Your task to perform on an android device: open app "WhatsApp Messenger" (install if not already installed) and go to login screen Image 0: 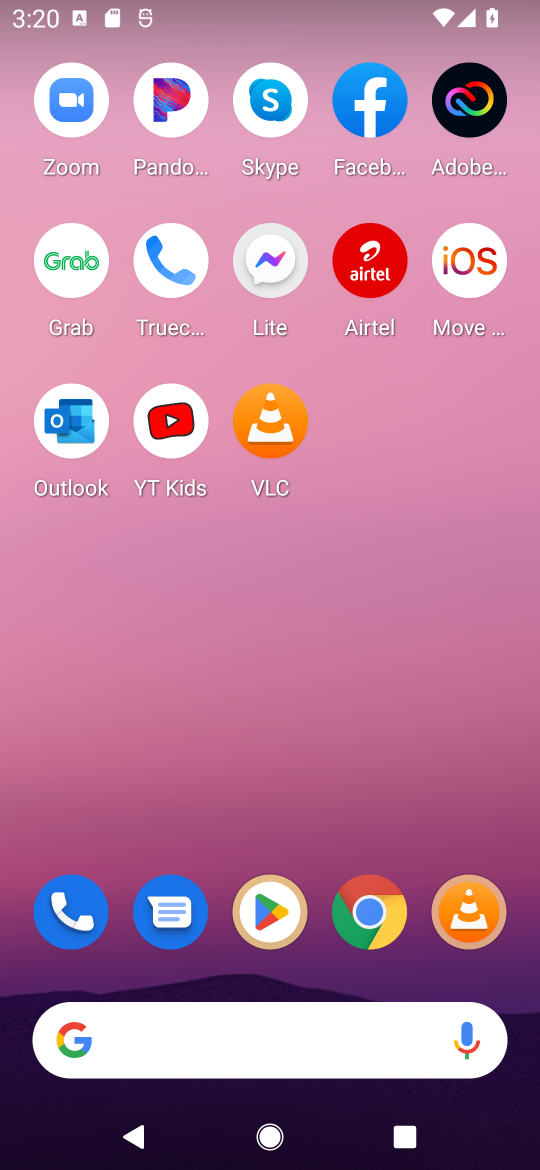
Step 0: drag from (151, 1059) to (226, 15)
Your task to perform on an android device: open app "WhatsApp Messenger" (install if not already installed) and go to login screen Image 1: 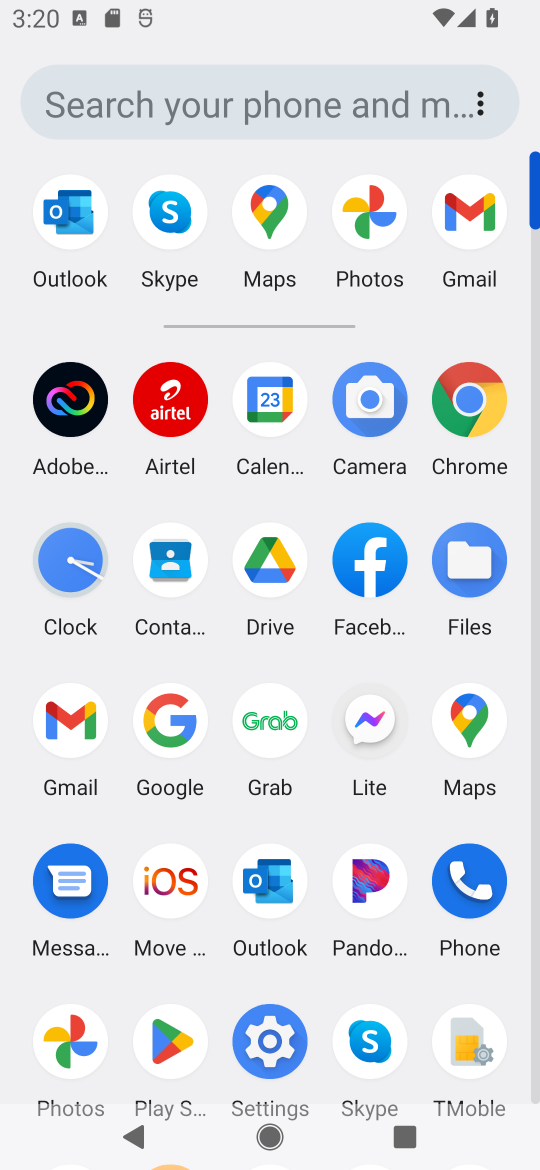
Step 1: click (171, 1037)
Your task to perform on an android device: open app "WhatsApp Messenger" (install if not already installed) and go to login screen Image 2: 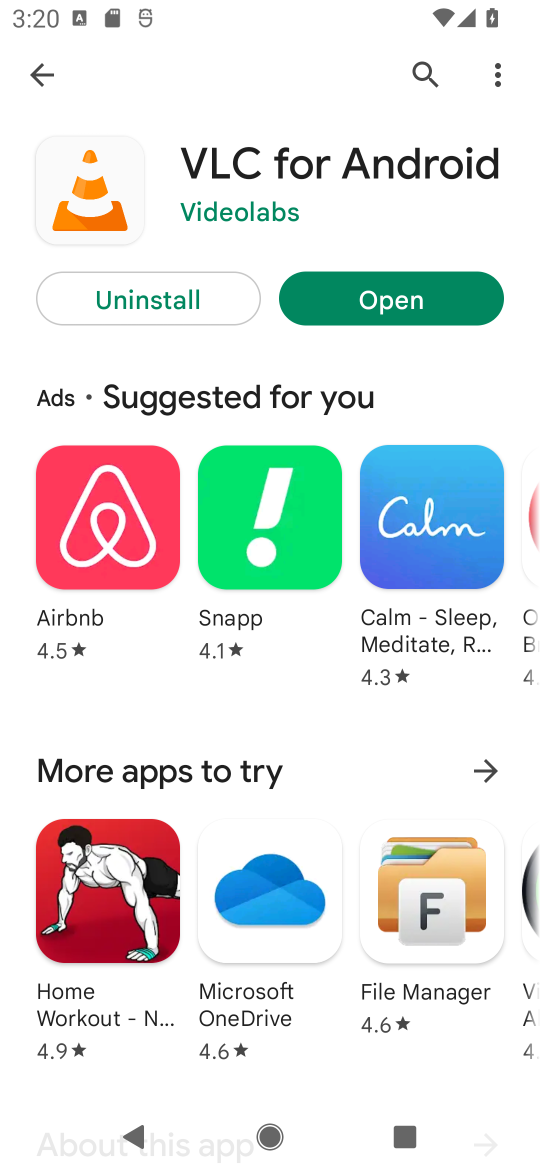
Step 2: press back button
Your task to perform on an android device: open app "WhatsApp Messenger" (install if not already installed) and go to login screen Image 3: 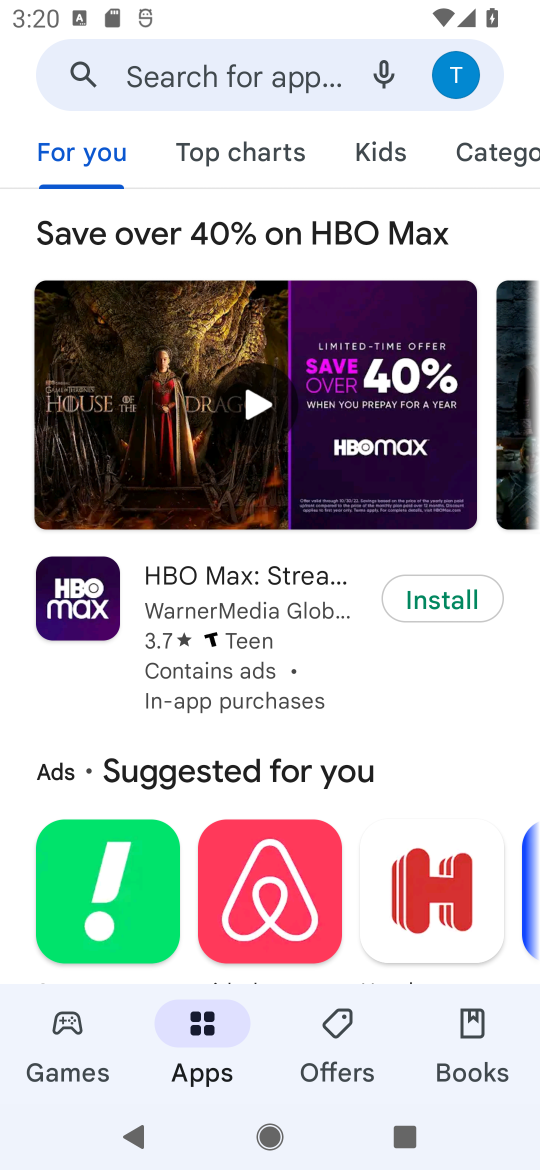
Step 3: click (303, 78)
Your task to perform on an android device: open app "WhatsApp Messenger" (install if not already installed) and go to login screen Image 4: 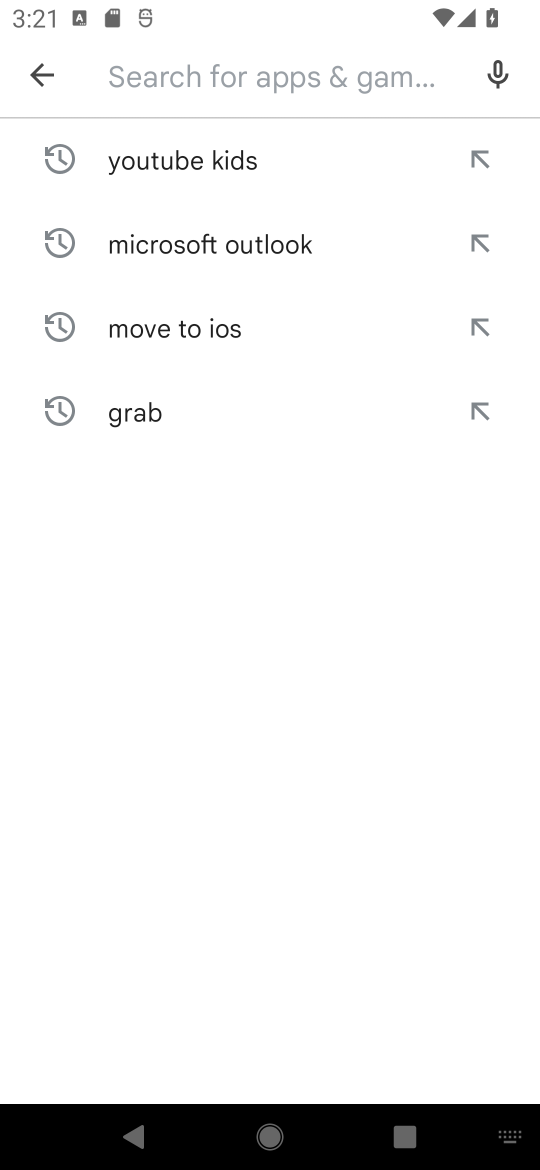
Step 4: type "WhatsApp Messenger"
Your task to perform on an android device: open app "WhatsApp Messenger" (install if not already installed) and go to login screen Image 5: 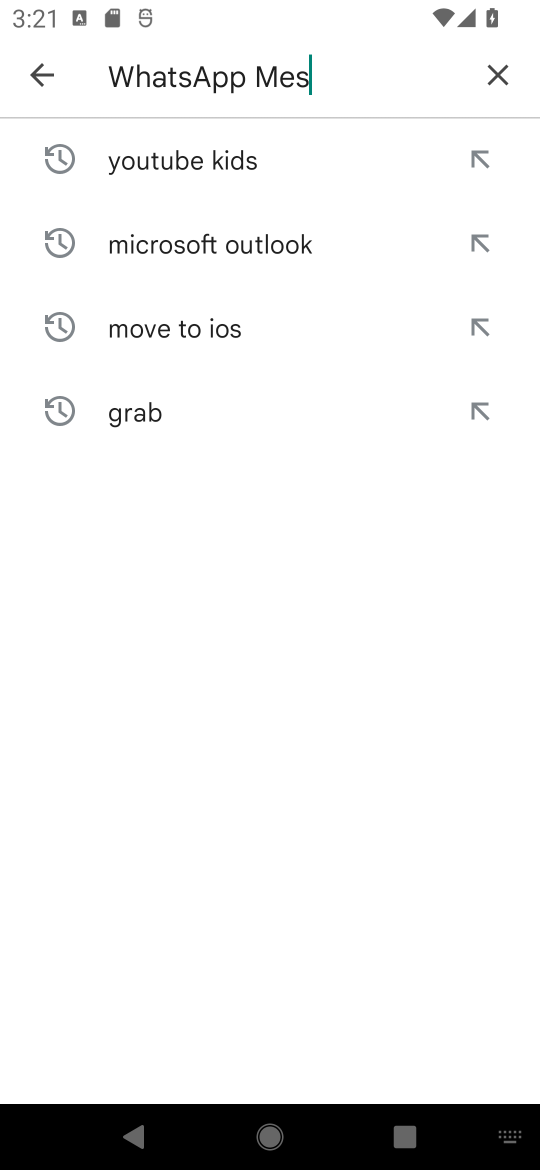
Step 5: type ""
Your task to perform on an android device: open app "WhatsApp Messenger" (install if not already installed) and go to login screen Image 6: 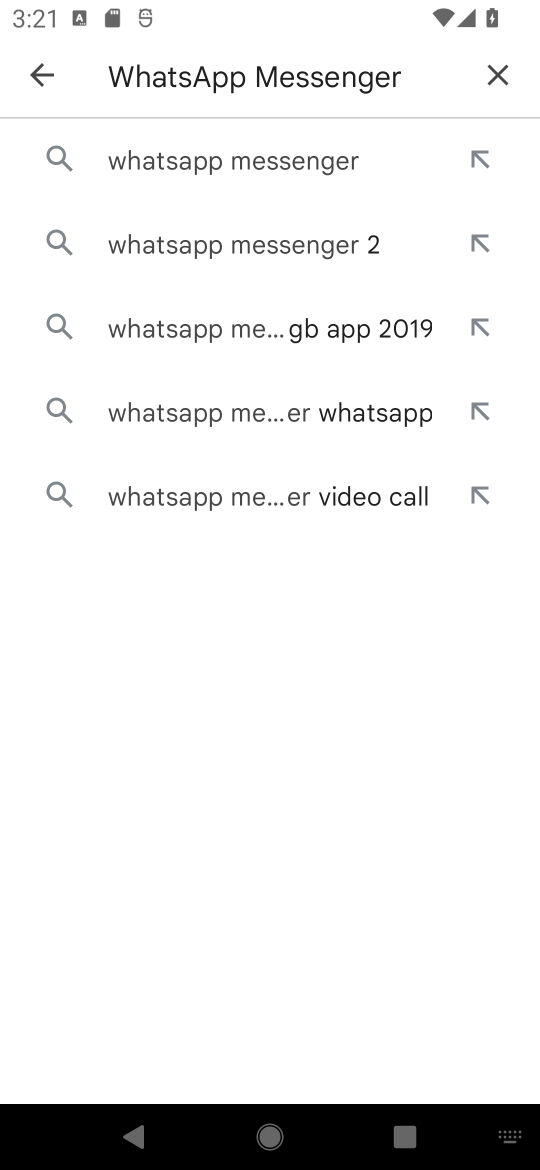
Step 6: click (294, 154)
Your task to perform on an android device: open app "WhatsApp Messenger" (install if not already installed) and go to login screen Image 7: 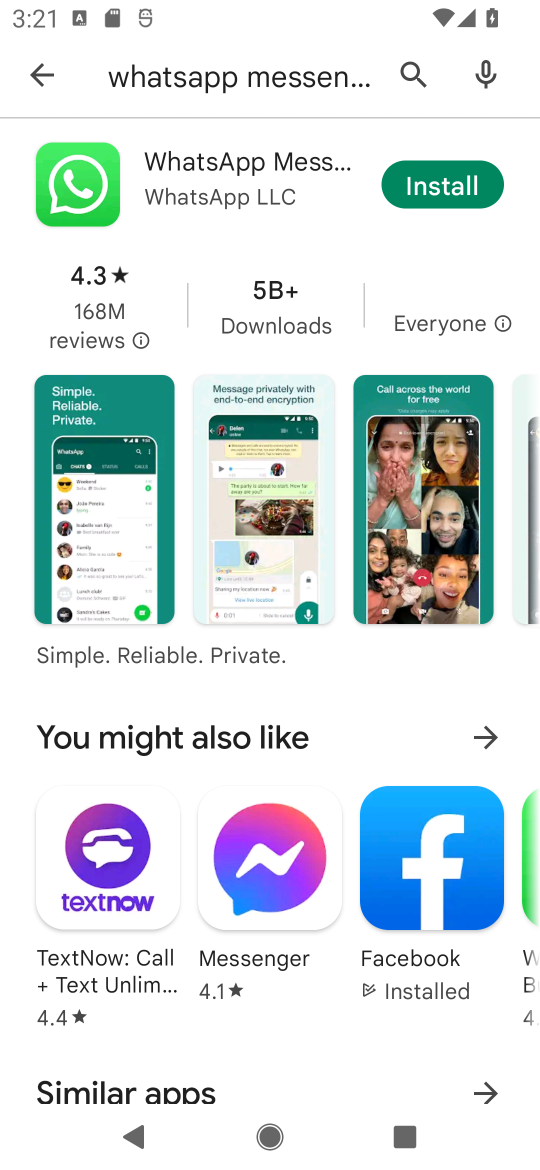
Step 7: click (434, 195)
Your task to perform on an android device: open app "WhatsApp Messenger" (install if not already installed) and go to login screen Image 8: 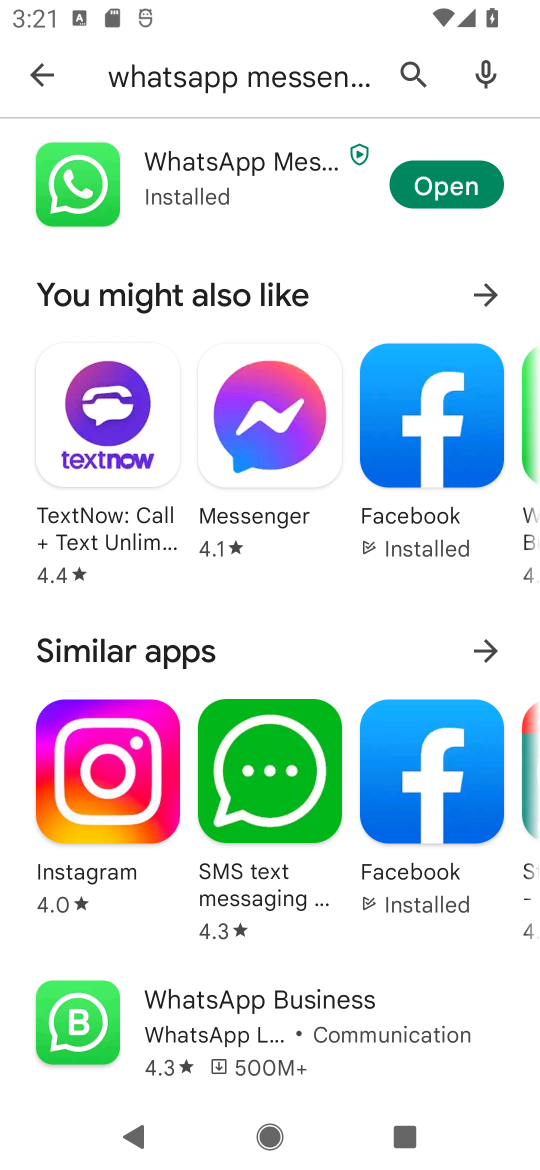
Step 8: click (440, 184)
Your task to perform on an android device: open app "WhatsApp Messenger" (install if not already installed) and go to login screen Image 9: 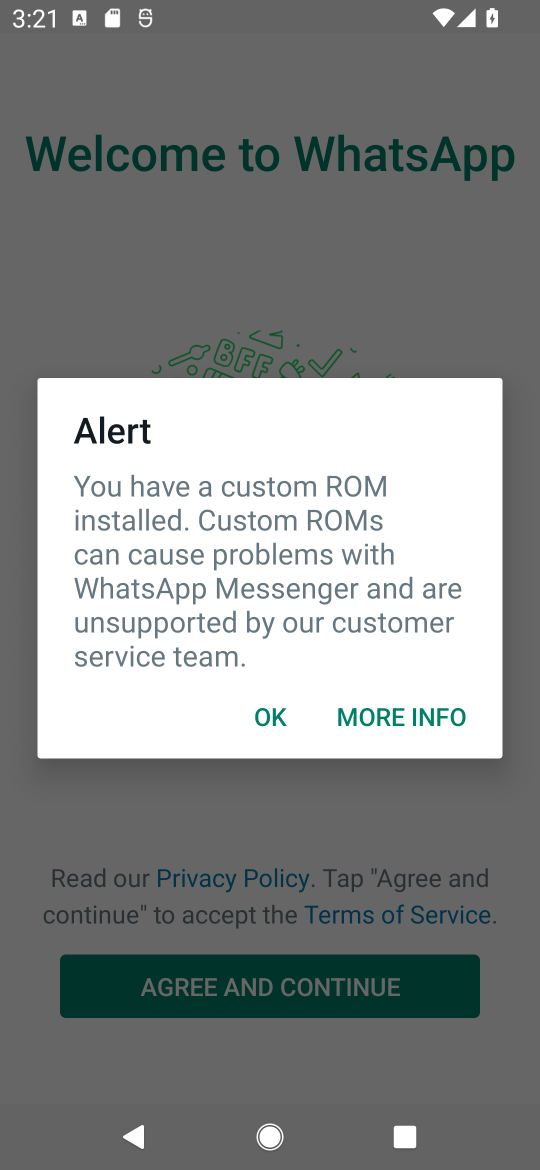
Step 9: click (273, 715)
Your task to perform on an android device: open app "WhatsApp Messenger" (install if not already installed) and go to login screen Image 10: 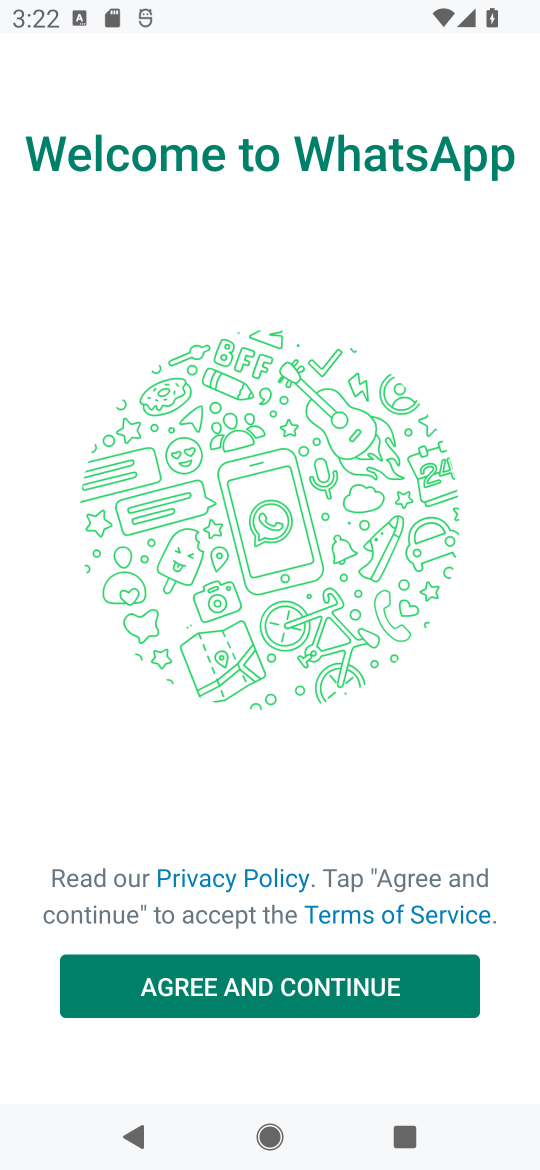
Step 10: click (311, 967)
Your task to perform on an android device: open app "WhatsApp Messenger" (install if not already installed) and go to login screen Image 11: 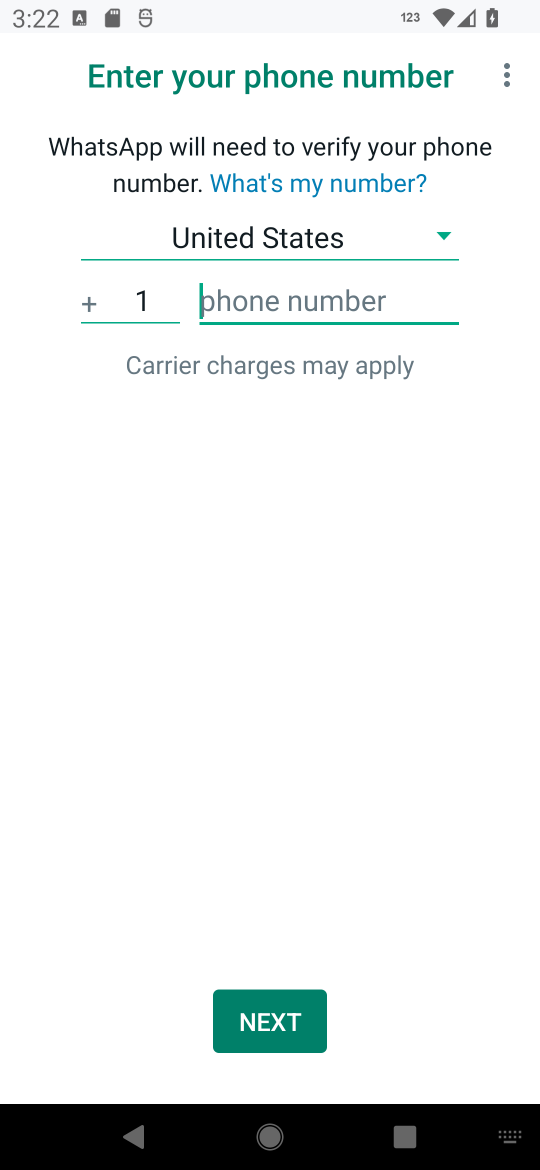
Step 11: task complete